Your task to perform on an android device: Open the calendar app, open the side menu, and click the "Day" option Image 0: 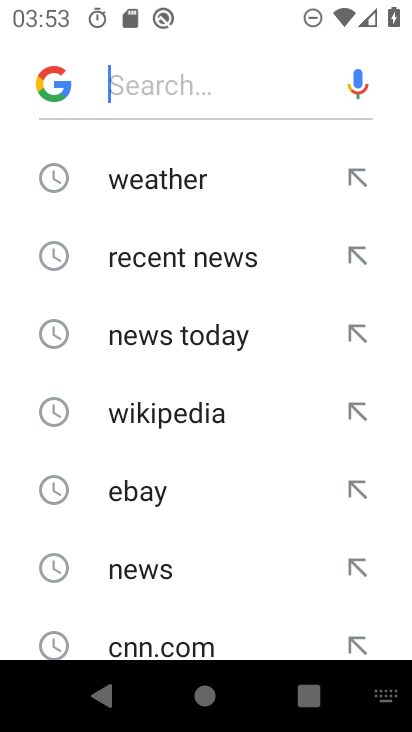
Step 0: press back button
Your task to perform on an android device: Open the calendar app, open the side menu, and click the "Day" option Image 1: 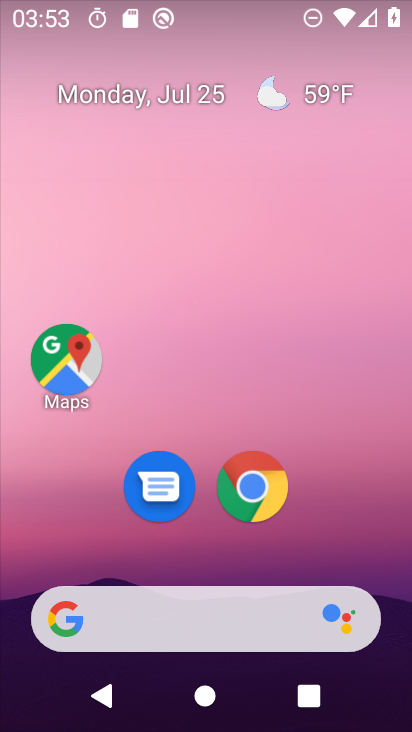
Step 1: drag from (98, 569) to (232, 1)
Your task to perform on an android device: Open the calendar app, open the side menu, and click the "Day" option Image 2: 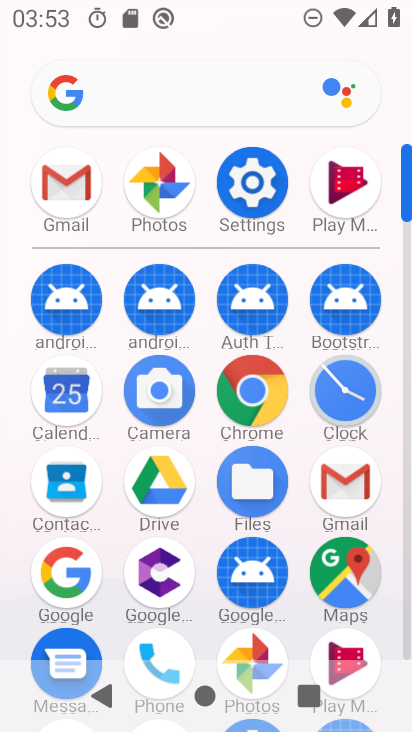
Step 2: click (57, 387)
Your task to perform on an android device: Open the calendar app, open the side menu, and click the "Day" option Image 3: 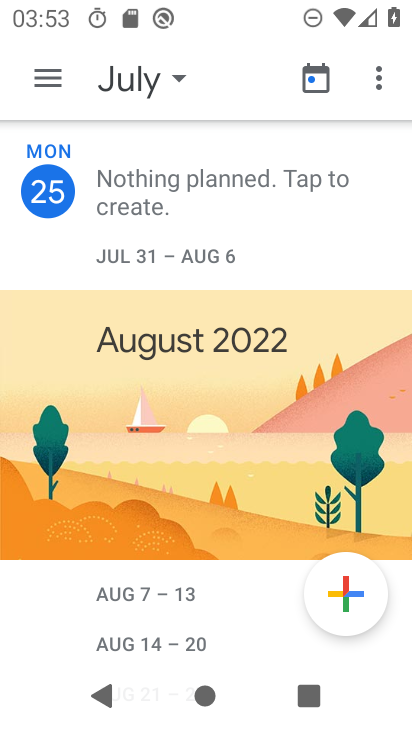
Step 3: click (31, 72)
Your task to perform on an android device: Open the calendar app, open the side menu, and click the "Day" option Image 4: 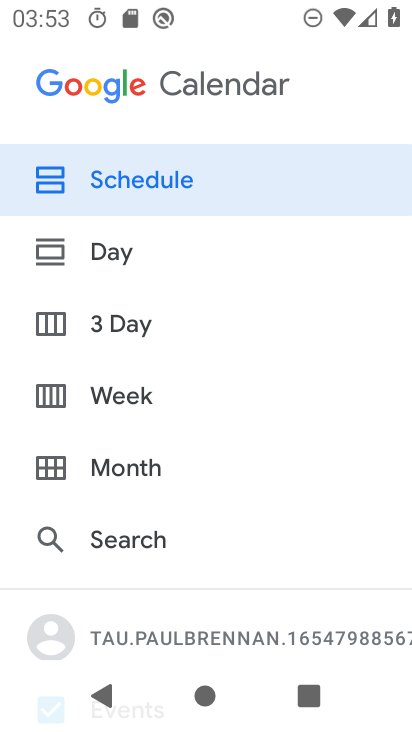
Step 4: click (107, 250)
Your task to perform on an android device: Open the calendar app, open the side menu, and click the "Day" option Image 5: 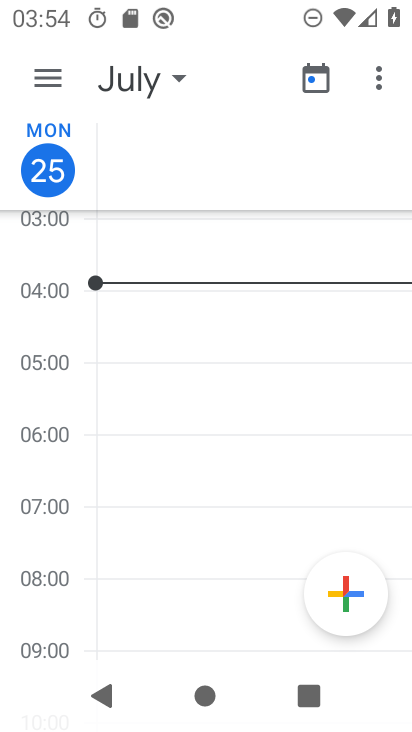
Step 5: click (54, 71)
Your task to perform on an android device: Open the calendar app, open the side menu, and click the "Day" option Image 6: 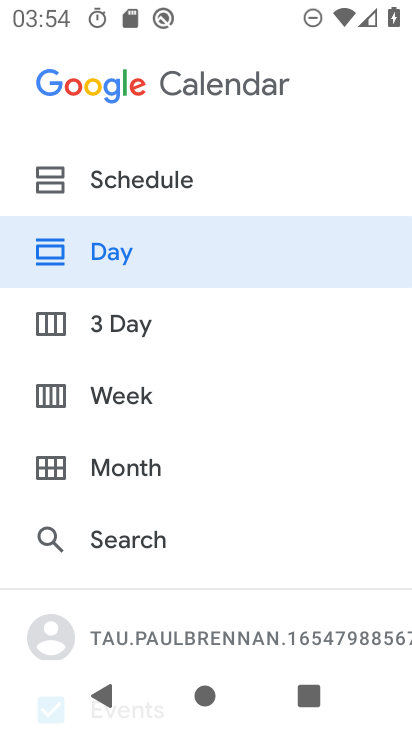
Step 6: click (133, 243)
Your task to perform on an android device: Open the calendar app, open the side menu, and click the "Day" option Image 7: 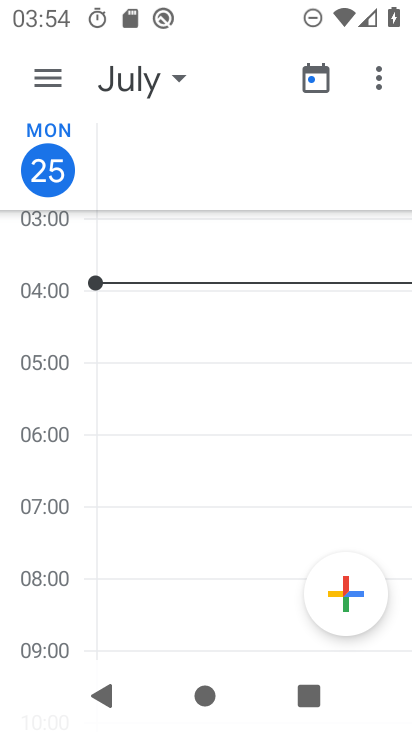
Step 7: task complete